Your task to perform on an android device: Go to Amazon Image 0: 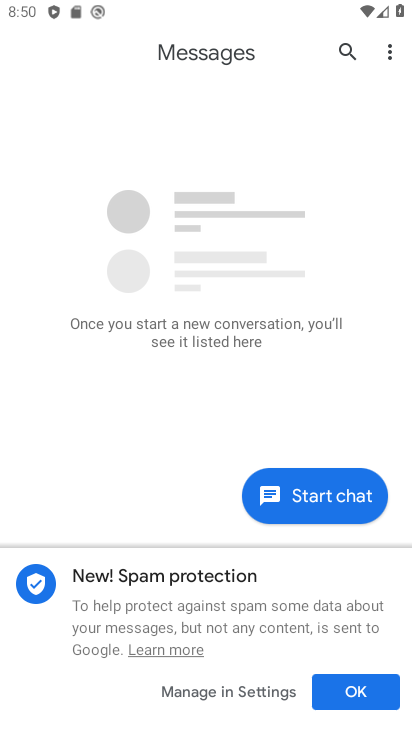
Step 0: press home button
Your task to perform on an android device: Go to Amazon Image 1: 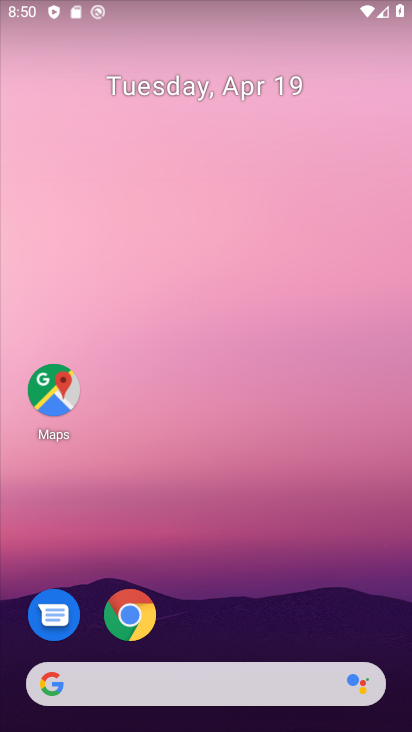
Step 1: click (130, 622)
Your task to perform on an android device: Go to Amazon Image 2: 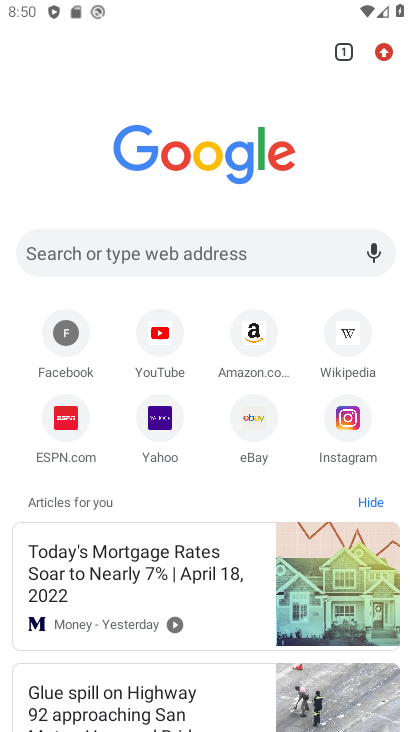
Step 2: click (251, 340)
Your task to perform on an android device: Go to Amazon Image 3: 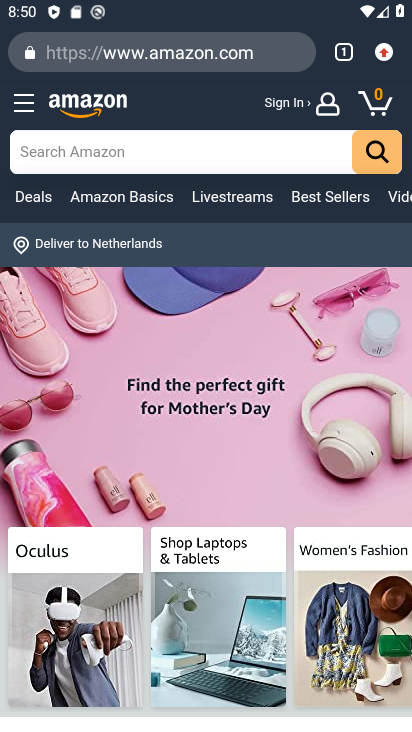
Step 3: task complete